Your task to perform on an android device: Search for vegetarian restaurants on Maps Image 0: 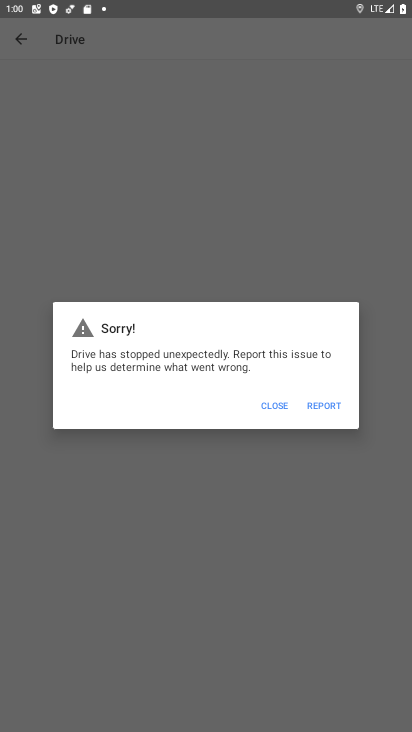
Step 0: press home button
Your task to perform on an android device: Search for vegetarian restaurants on Maps Image 1: 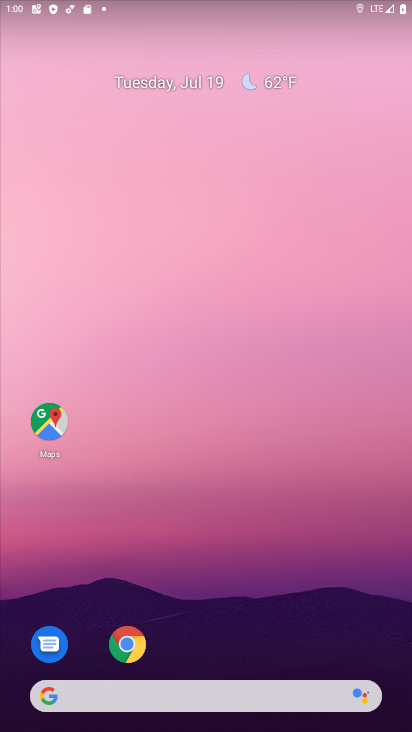
Step 1: click (57, 423)
Your task to perform on an android device: Search for vegetarian restaurants on Maps Image 2: 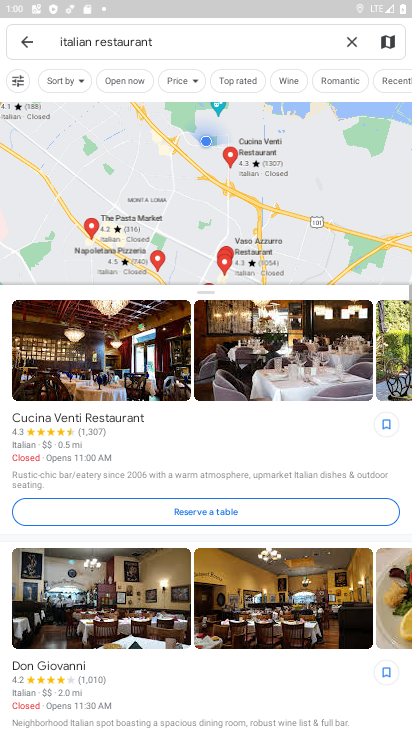
Step 2: click (348, 39)
Your task to perform on an android device: Search for vegetarian restaurants on Maps Image 3: 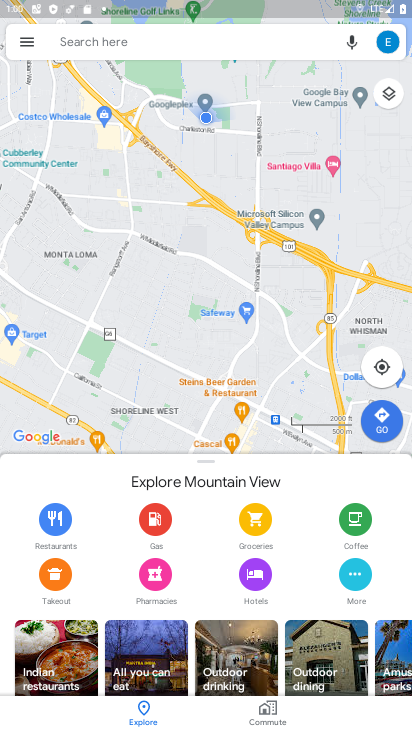
Step 3: click (213, 42)
Your task to perform on an android device: Search for vegetarian restaurants on Maps Image 4: 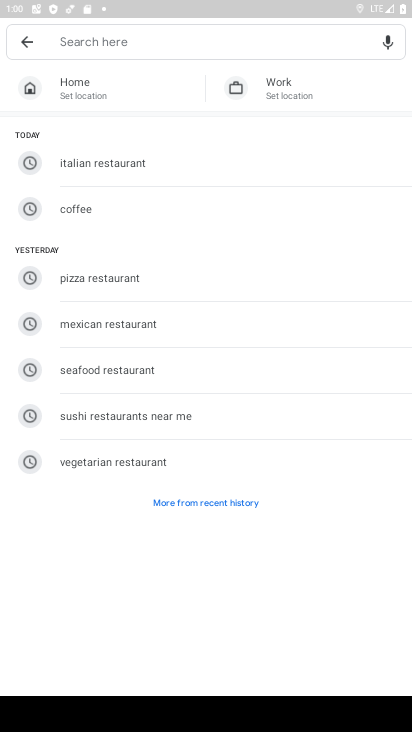
Step 4: click (149, 463)
Your task to perform on an android device: Search for vegetarian restaurants on Maps Image 5: 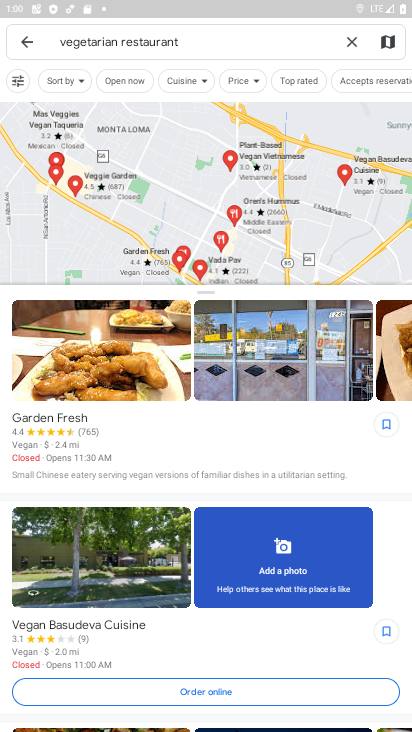
Step 5: task complete